Your task to perform on an android device: toggle javascript in the chrome app Image 0: 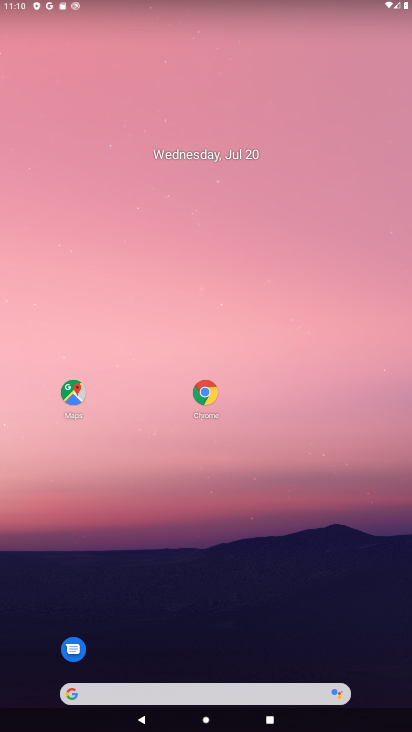
Step 0: drag from (185, 631) to (243, 273)
Your task to perform on an android device: toggle javascript in the chrome app Image 1: 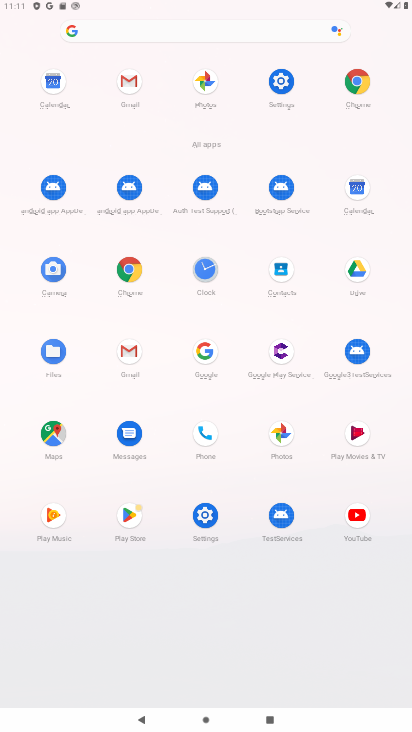
Step 1: click (355, 78)
Your task to perform on an android device: toggle javascript in the chrome app Image 2: 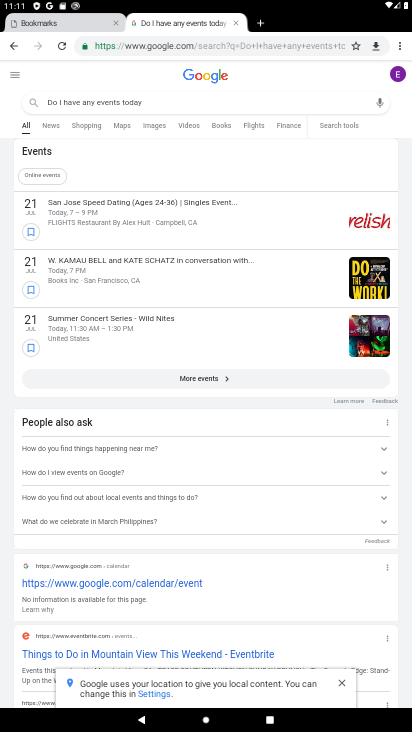
Step 2: click (403, 43)
Your task to perform on an android device: toggle javascript in the chrome app Image 3: 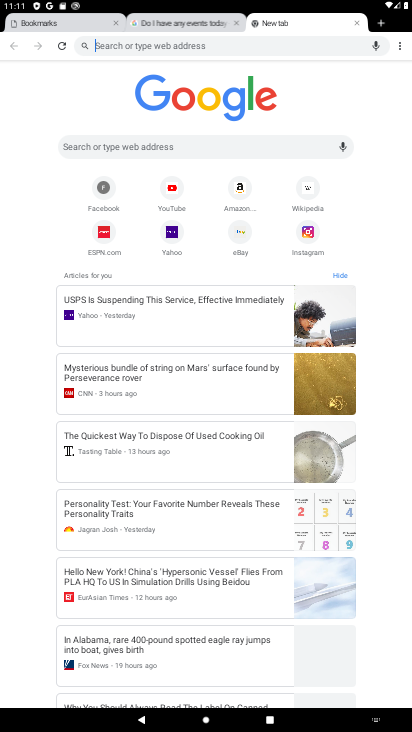
Step 3: click (407, 43)
Your task to perform on an android device: toggle javascript in the chrome app Image 4: 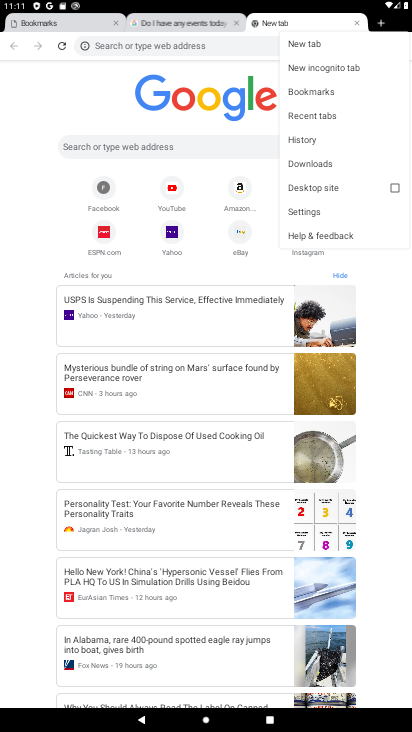
Step 4: click (320, 214)
Your task to perform on an android device: toggle javascript in the chrome app Image 5: 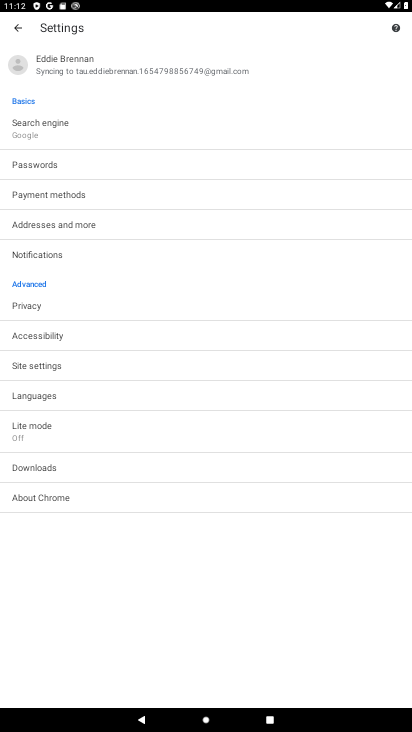
Step 5: click (114, 358)
Your task to perform on an android device: toggle javascript in the chrome app Image 6: 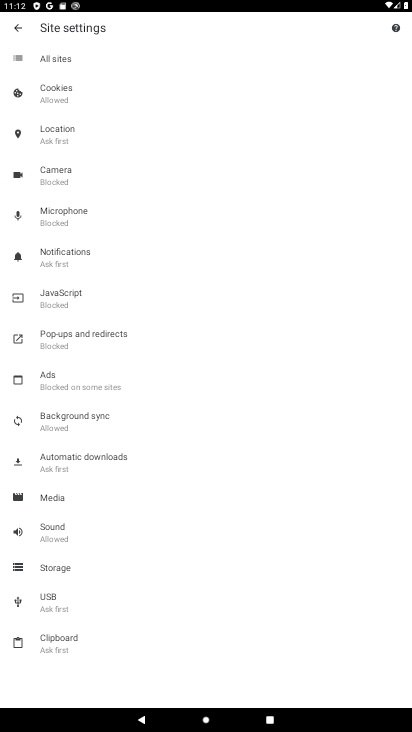
Step 6: click (73, 291)
Your task to perform on an android device: toggle javascript in the chrome app Image 7: 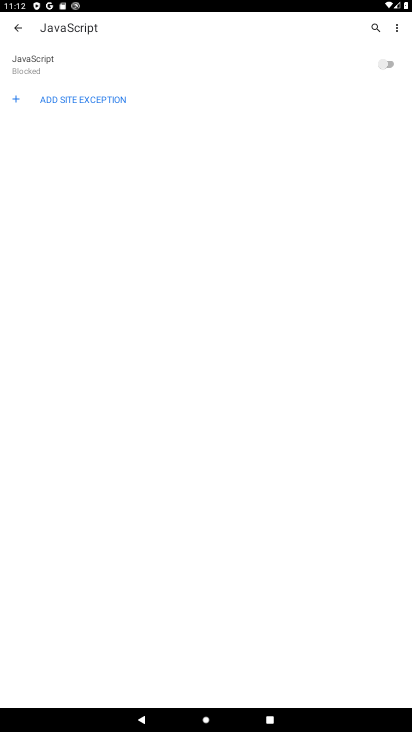
Step 7: click (403, 60)
Your task to perform on an android device: toggle javascript in the chrome app Image 8: 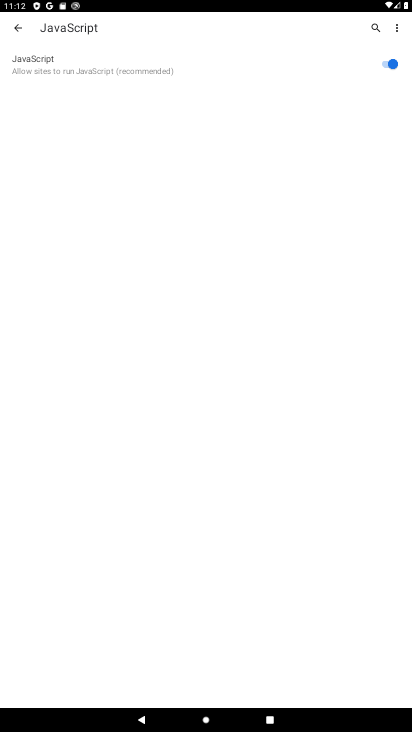
Step 8: task complete